Your task to perform on an android device: allow notifications from all sites in the chrome app Image 0: 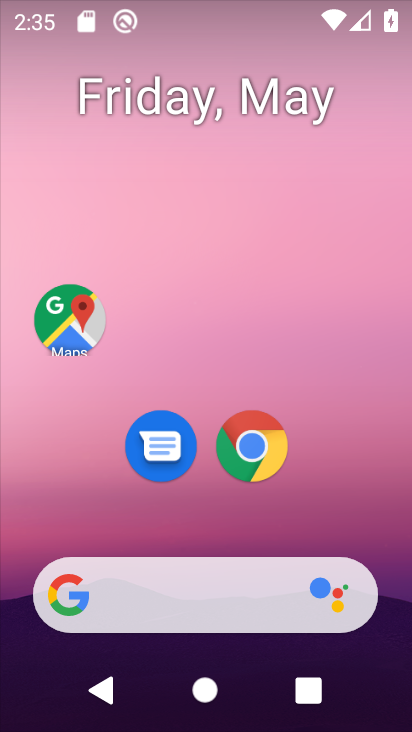
Step 0: click (253, 446)
Your task to perform on an android device: allow notifications from all sites in the chrome app Image 1: 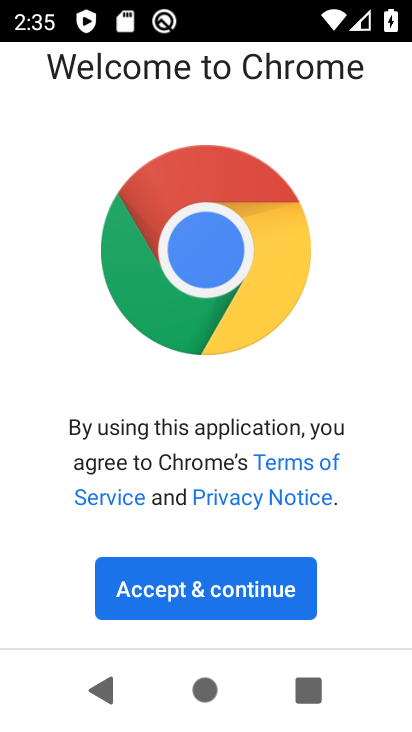
Step 1: click (150, 590)
Your task to perform on an android device: allow notifications from all sites in the chrome app Image 2: 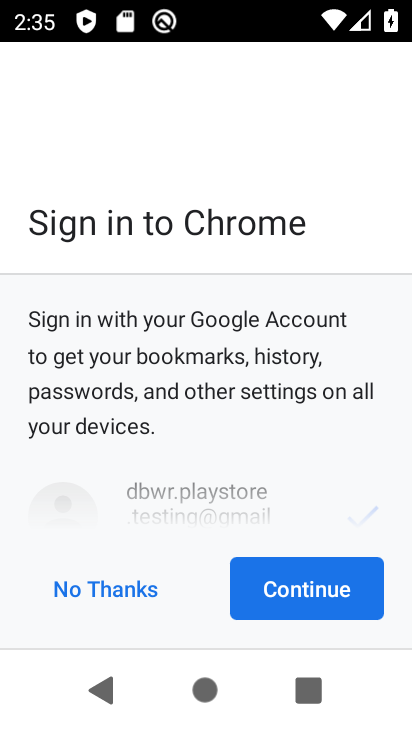
Step 2: click (300, 568)
Your task to perform on an android device: allow notifications from all sites in the chrome app Image 3: 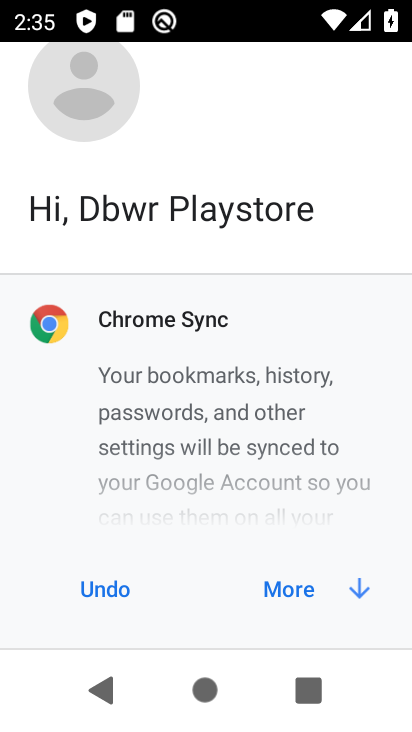
Step 3: click (305, 598)
Your task to perform on an android device: allow notifications from all sites in the chrome app Image 4: 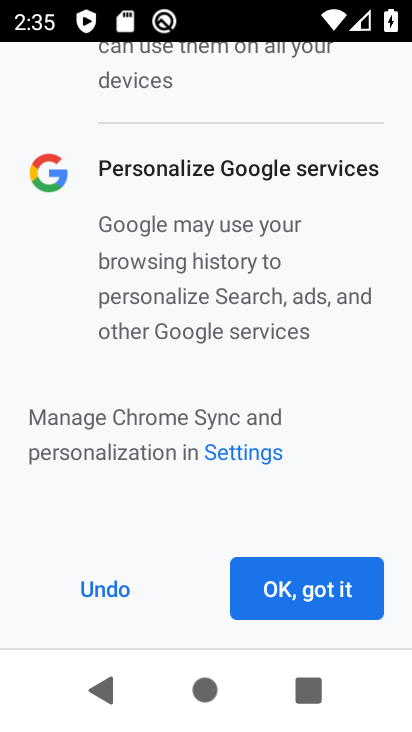
Step 4: click (305, 598)
Your task to perform on an android device: allow notifications from all sites in the chrome app Image 5: 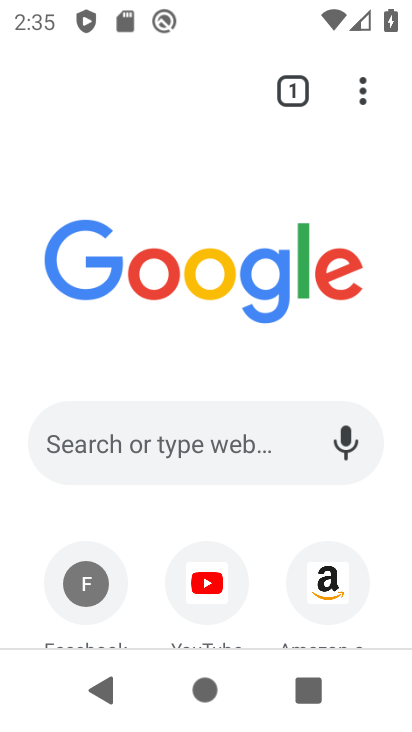
Step 5: click (370, 101)
Your task to perform on an android device: allow notifications from all sites in the chrome app Image 6: 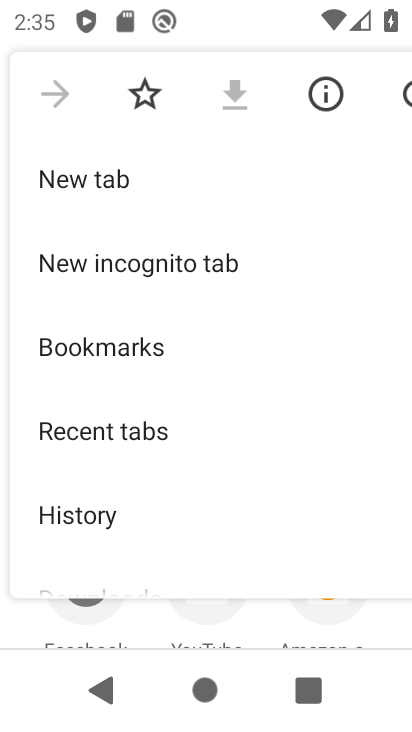
Step 6: drag from (179, 572) to (195, 90)
Your task to perform on an android device: allow notifications from all sites in the chrome app Image 7: 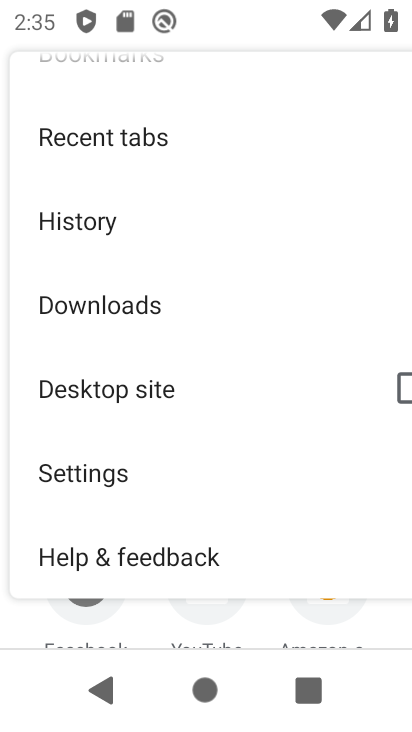
Step 7: click (134, 474)
Your task to perform on an android device: allow notifications from all sites in the chrome app Image 8: 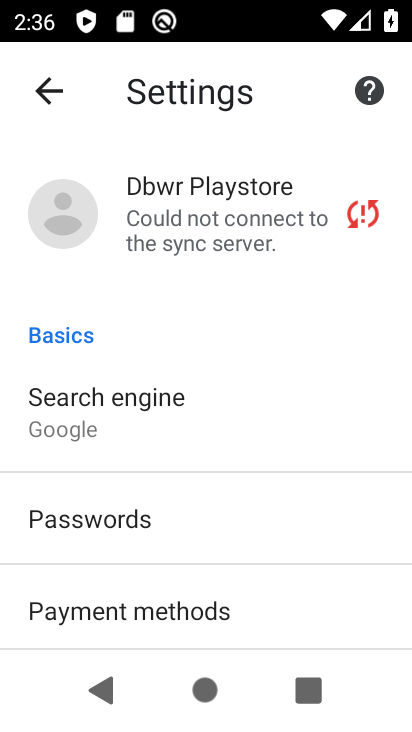
Step 8: drag from (157, 564) to (172, 124)
Your task to perform on an android device: allow notifications from all sites in the chrome app Image 9: 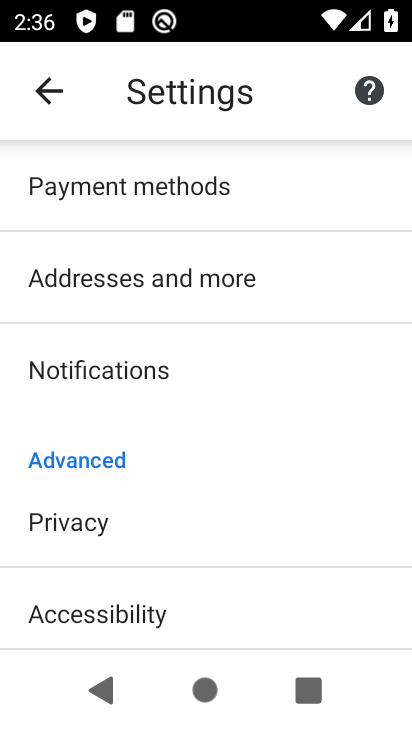
Step 9: drag from (162, 385) to (169, 139)
Your task to perform on an android device: allow notifications from all sites in the chrome app Image 10: 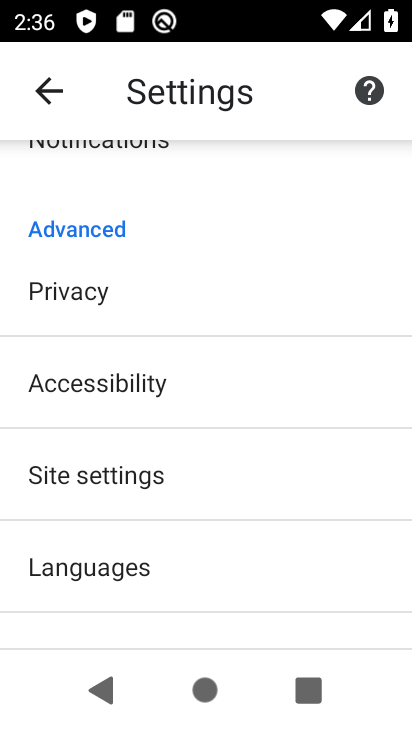
Step 10: click (146, 483)
Your task to perform on an android device: allow notifications from all sites in the chrome app Image 11: 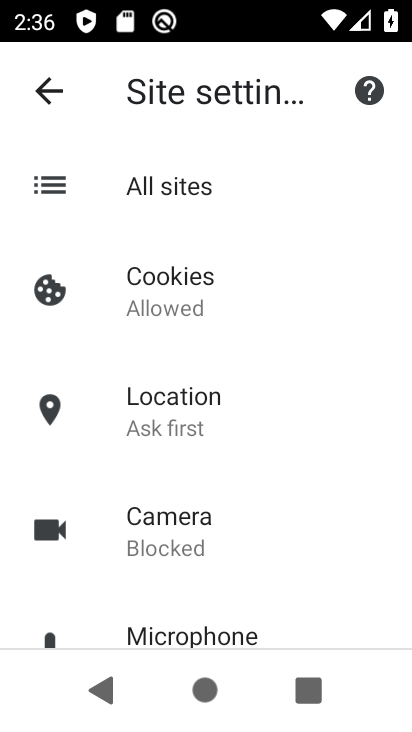
Step 11: drag from (197, 580) to (221, 355)
Your task to perform on an android device: allow notifications from all sites in the chrome app Image 12: 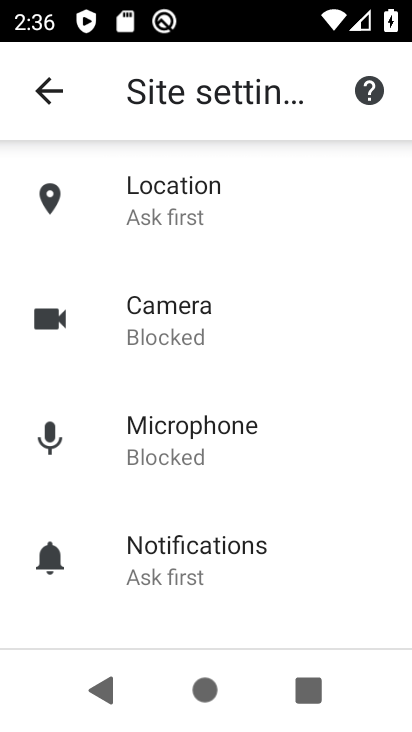
Step 12: click (216, 549)
Your task to perform on an android device: allow notifications from all sites in the chrome app Image 13: 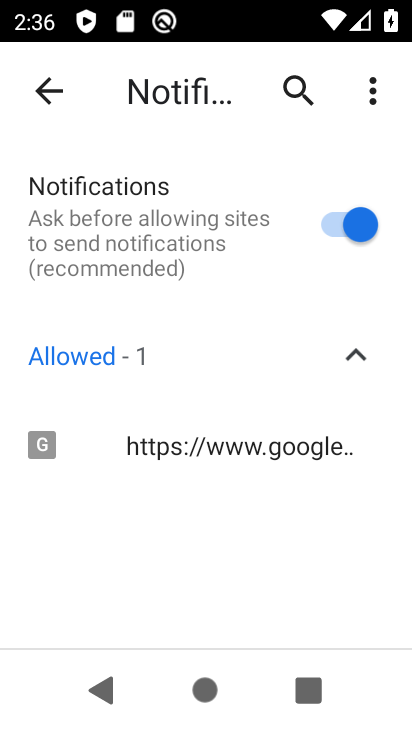
Step 13: task complete